Your task to perform on an android device: Search for Mexican restaurants on Maps Image 0: 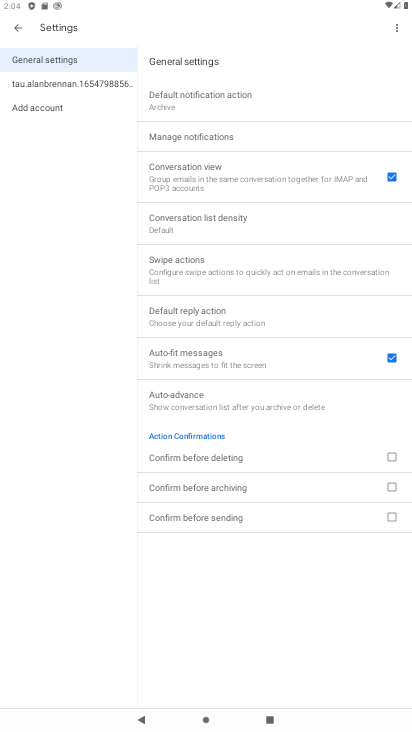
Step 0: press home button
Your task to perform on an android device: Search for Mexican restaurants on Maps Image 1: 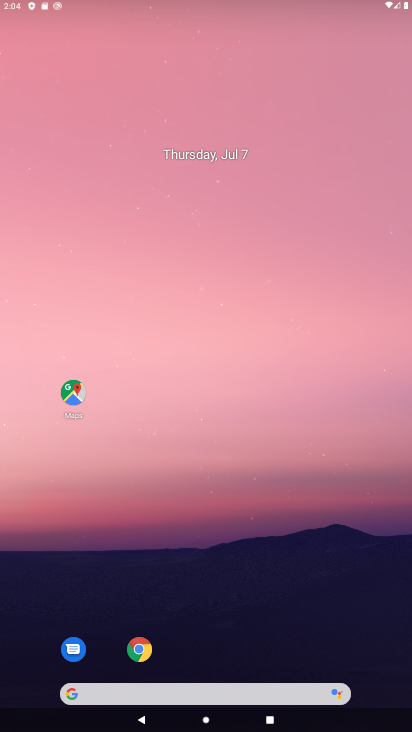
Step 1: drag from (292, 549) to (405, 27)
Your task to perform on an android device: Search for Mexican restaurants on Maps Image 2: 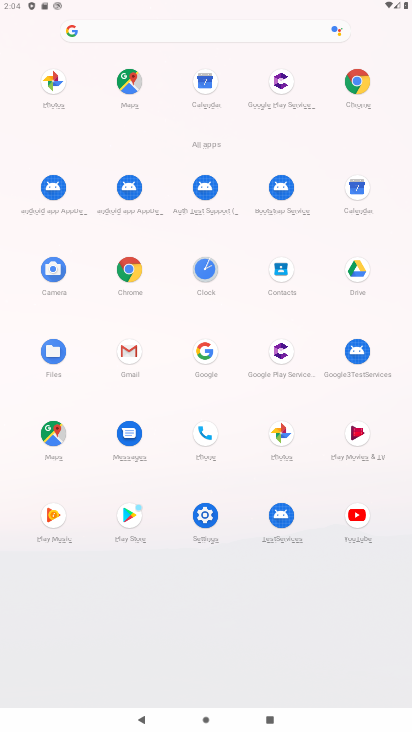
Step 2: click (57, 434)
Your task to perform on an android device: Search for Mexican restaurants on Maps Image 3: 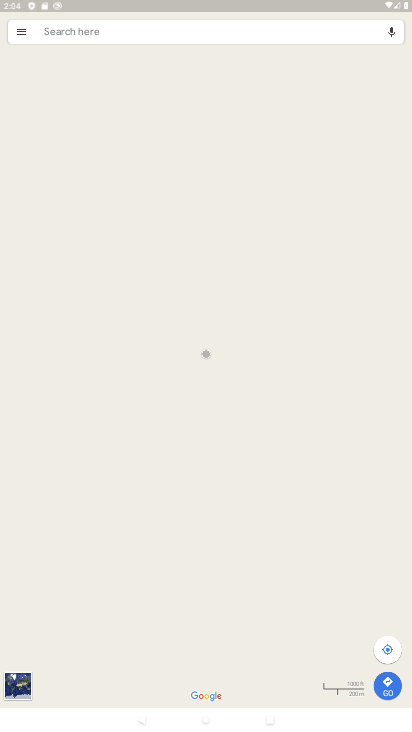
Step 3: click (149, 33)
Your task to perform on an android device: Search for Mexican restaurants on Maps Image 4: 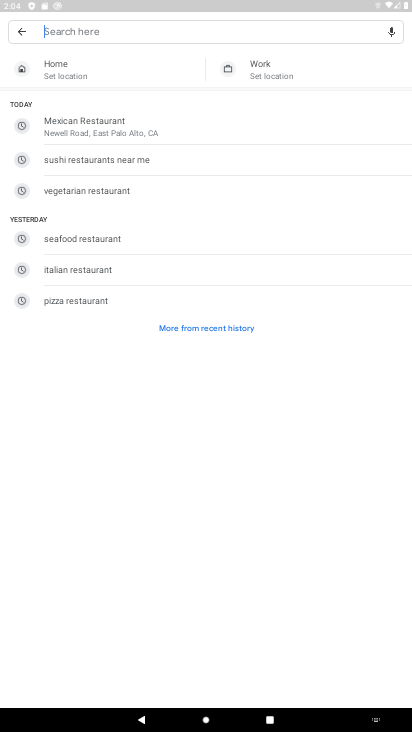
Step 4: type "mexican restaurant"
Your task to perform on an android device: Search for Mexican restaurants on Maps Image 5: 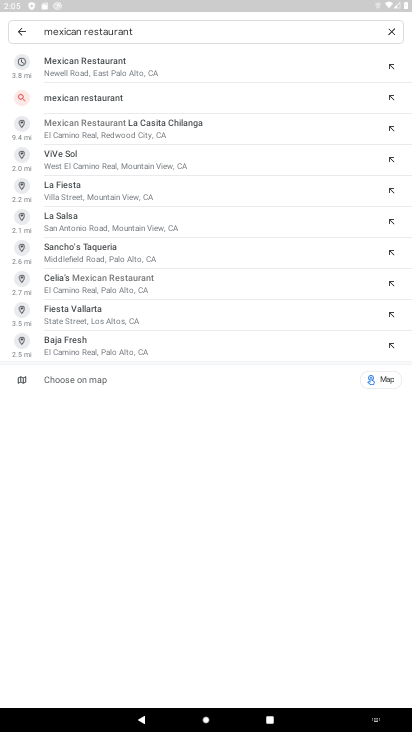
Step 5: click (128, 68)
Your task to perform on an android device: Search for Mexican restaurants on Maps Image 6: 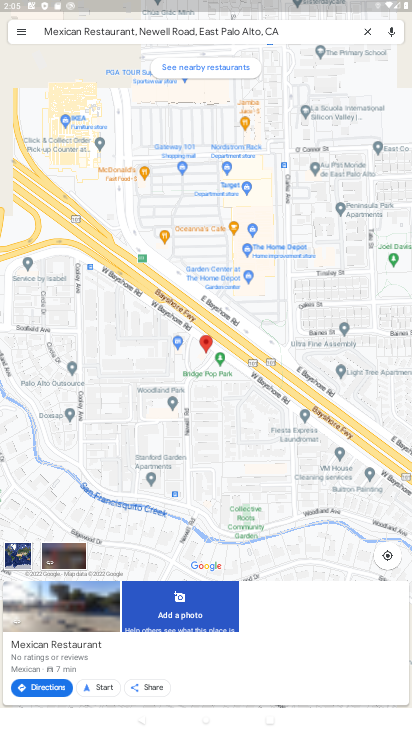
Step 6: press back button
Your task to perform on an android device: Search for Mexican restaurants on Maps Image 7: 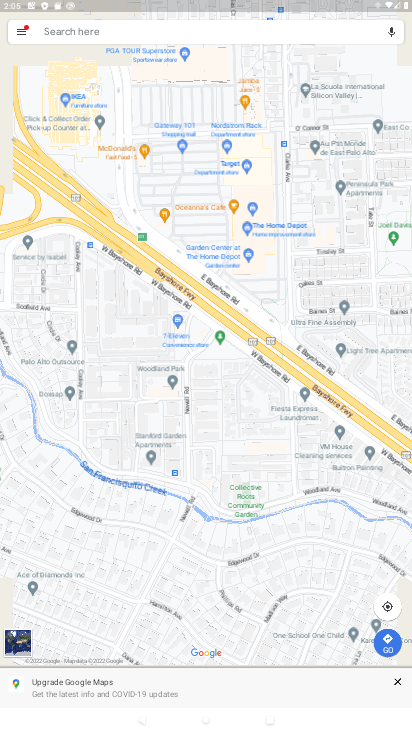
Step 7: click (150, 31)
Your task to perform on an android device: Search for Mexican restaurants on Maps Image 8: 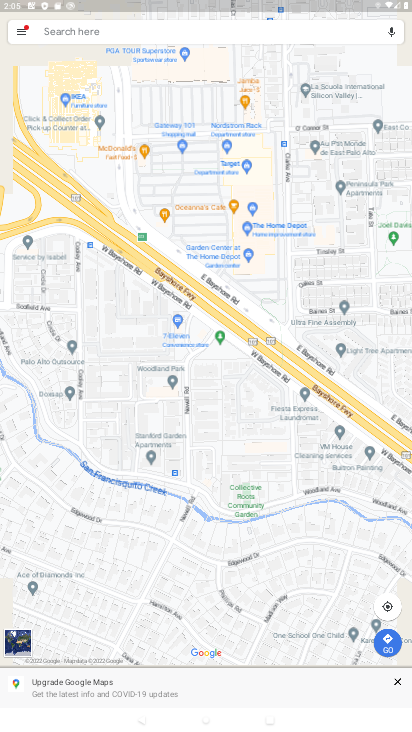
Step 8: click (150, 31)
Your task to perform on an android device: Search for Mexican restaurants on Maps Image 9: 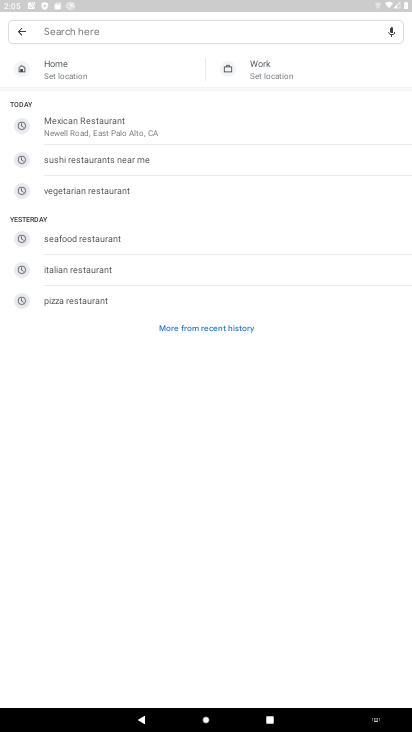
Step 9: click (130, 140)
Your task to perform on an android device: Search for Mexican restaurants on Maps Image 10: 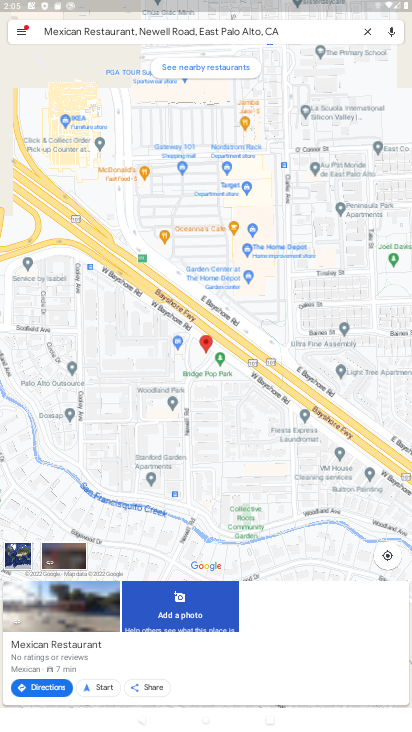
Step 10: task complete